Your task to perform on an android device: Open wifi settings Image 0: 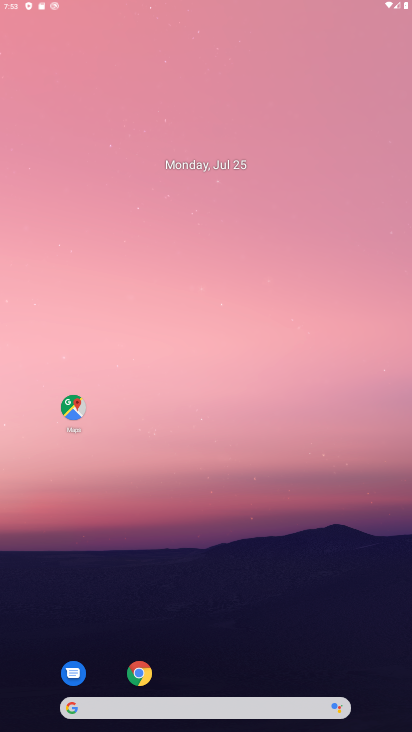
Step 0: click (72, 405)
Your task to perform on an android device: Open wifi settings Image 1: 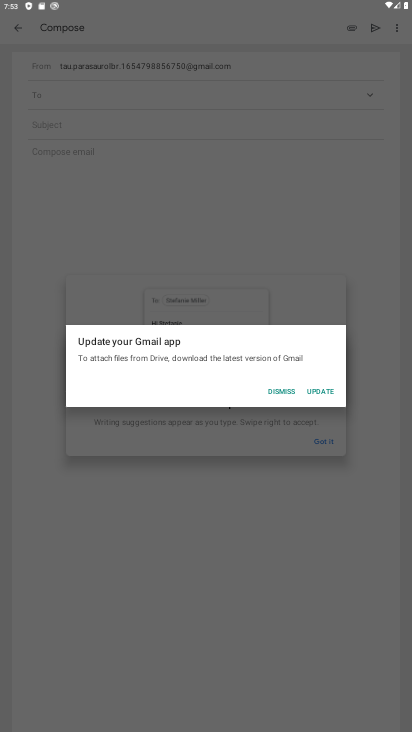
Step 1: drag from (200, 8) to (0, 296)
Your task to perform on an android device: Open wifi settings Image 2: 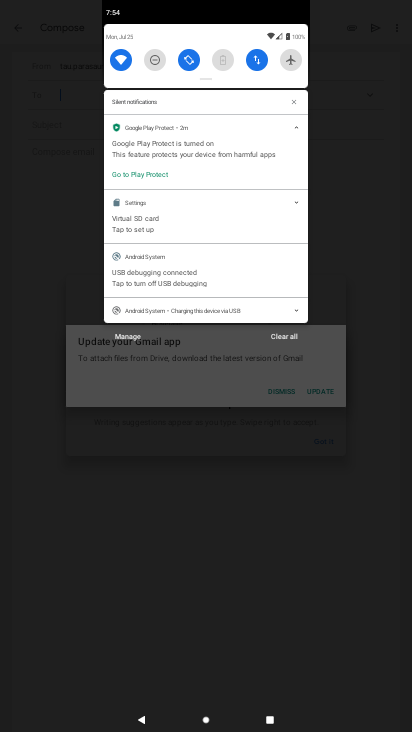
Step 2: click (120, 63)
Your task to perform on an android device: Open wifi settings Image 3: 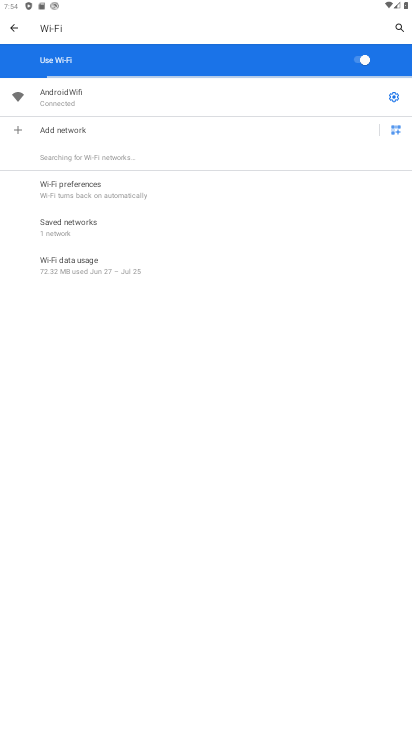
Step 3: task complete